Your task to perform on an android device: See recent photos Image 0: 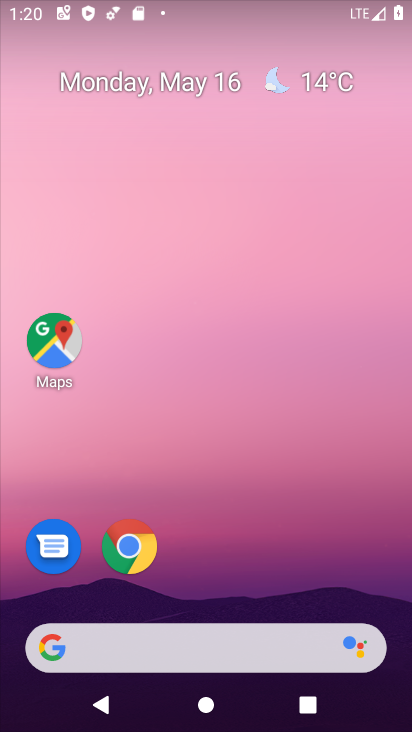
Step 0: drag from (226, 660) to (410, 235)
Your task to perform on an android device: See recent photos Image 1: 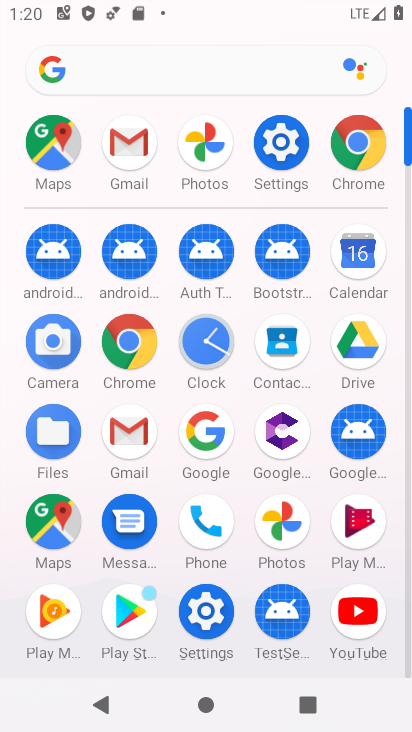
Step 1: click (284, 529)
Your task to perform on an android device: See recent photos Image 2: 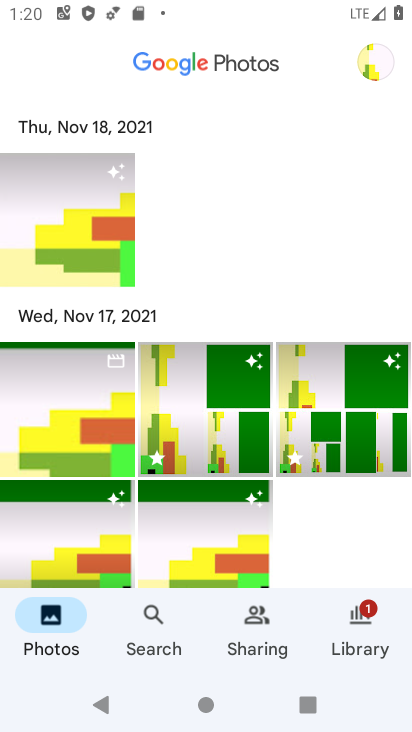
Step 2: task complete